Your task to perform on an android device: turn on priority inbox in the gmail app Image 0: 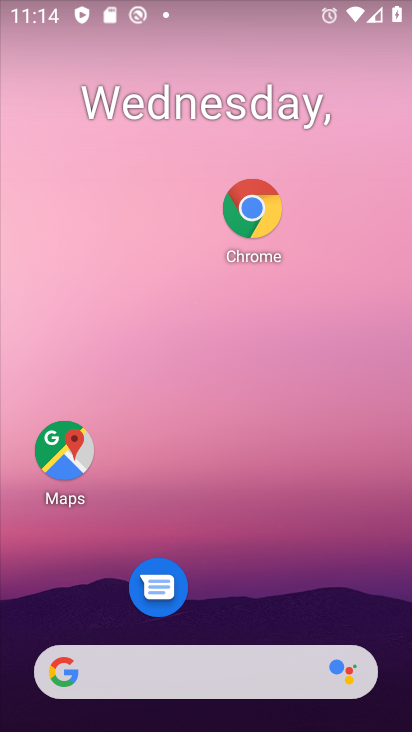
Step 0: drag from (234, 608) to (230, 128)
Your task to perform on an android device: turn on priority inbox in the gmail app Image 1: 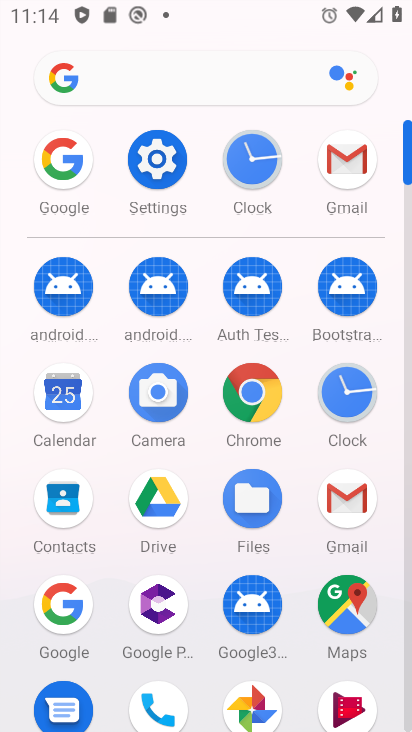
Step 1: click (351, 168)
Your task to perform on an android device: turn on priority inbox in the gmail app Image 2: 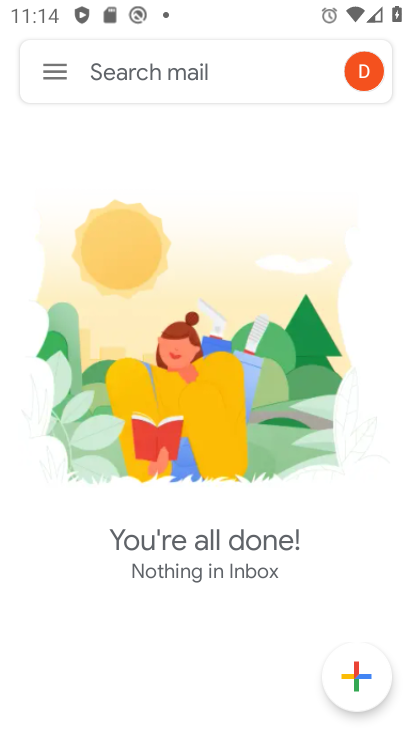
Step 2: click (48, 73)
Your task to perform on an android device: turn on priority inbox in the gmail app Image 3: 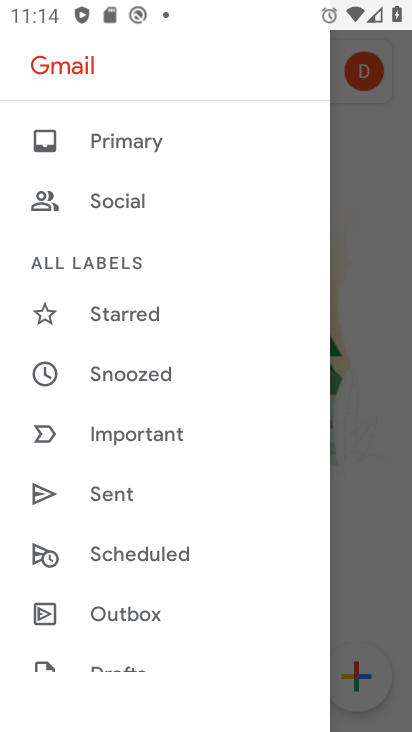
Step 3: drag from (138, 578) to (166, 352)
Your task to perform on an android device: turn on priority inbox in the gmail app Image 4: 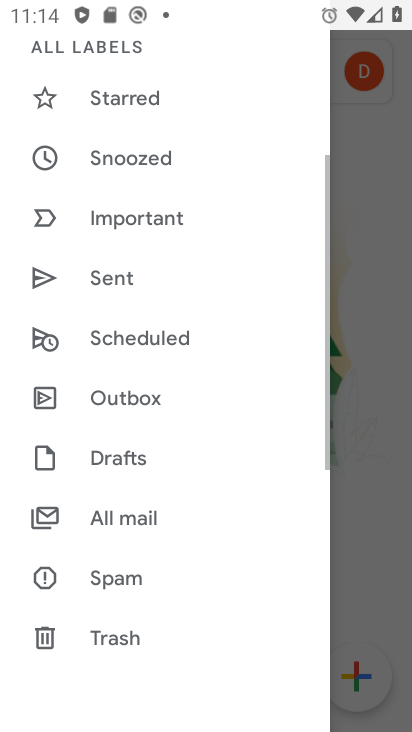
Step 4: drag from (104, 605) to (156, 220)
Your task to perform on an android device: turn on priority inbox in the gmail app Image 5: 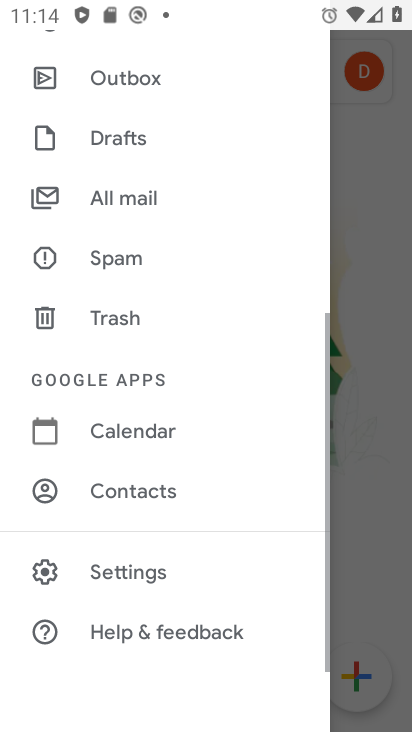
Step 5: click (122, 579)
Your task to perform on an android device: turn on priority inbox in the gmail app Image 6: 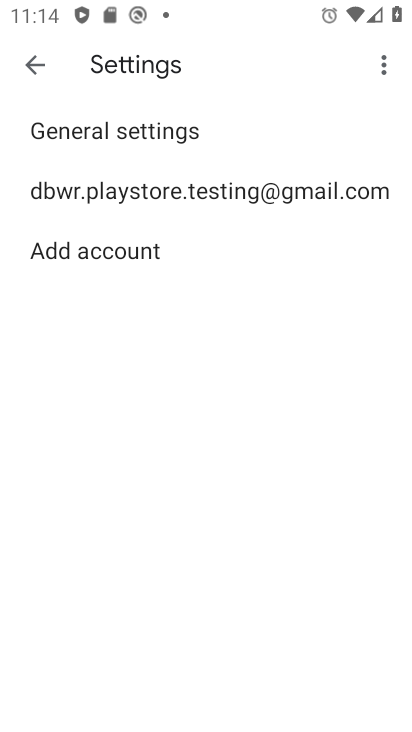
Step 6: click (122, 188)
Your task to perform on an android device: turn on priority inbox in the gmail app Image 7: 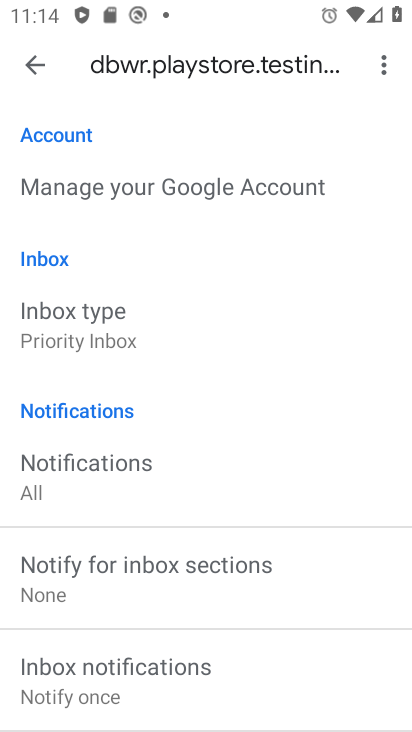
Step 7: task complete